Your task to perform on an android device: set default search engine in the chrome app Image 0: 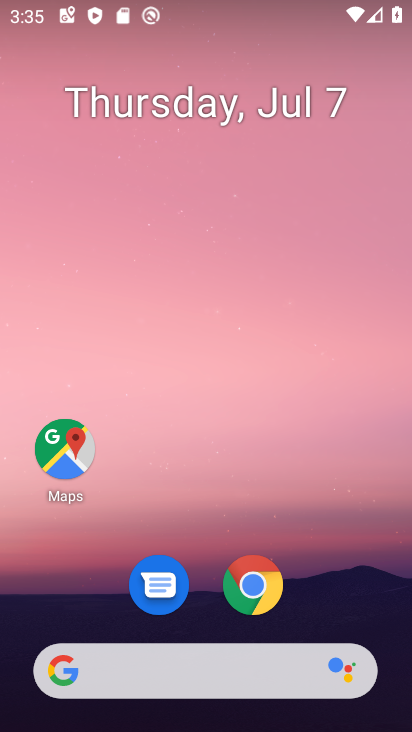
Step 0: click (261, 573)
Your task to perform on an android device: set default search engine in the chrome app Image 1: 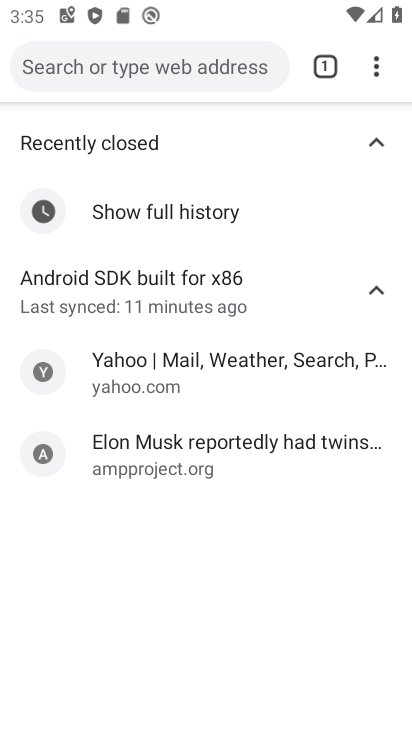
Step 1: click (378, 75)
Your task to perform on an android device: set default search engine in the chrome app Image 2: 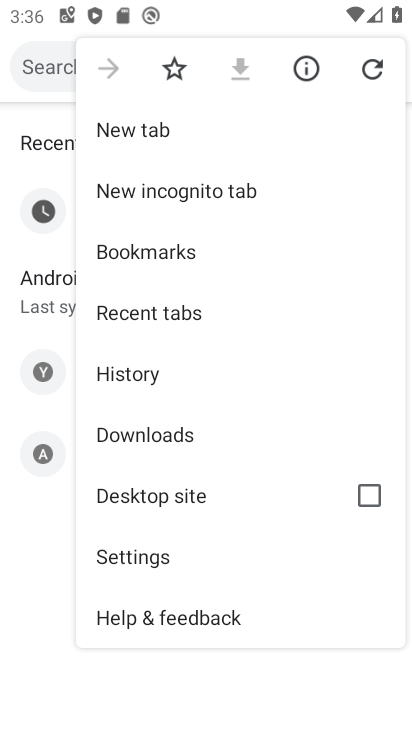
Step 2: click (144, 549)
Your task to perform on an android device: set default search engine in the chrome app Image 3: 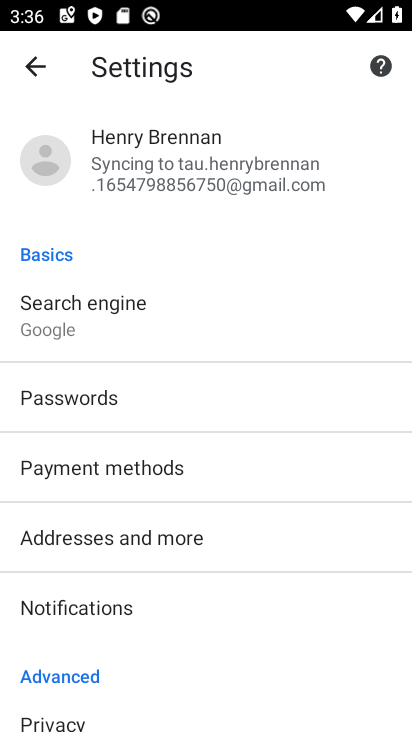
Step 3: click (118, 309)
Your task to perform on an android device: set default search engine in the chrome app Image 4: 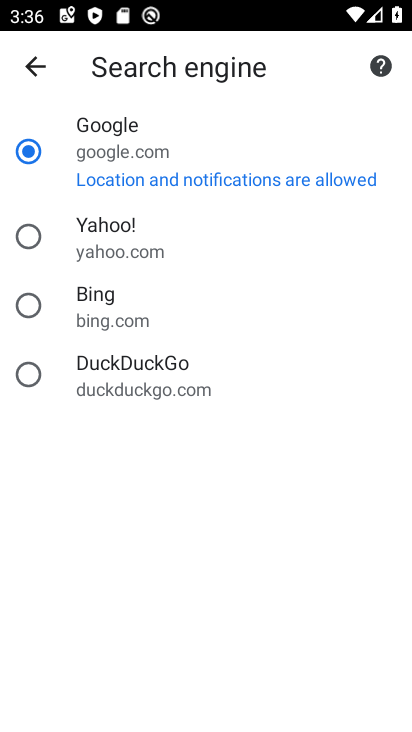
Step 4: task complete